Your task to perform on an android device: change notifications settings Image 0: 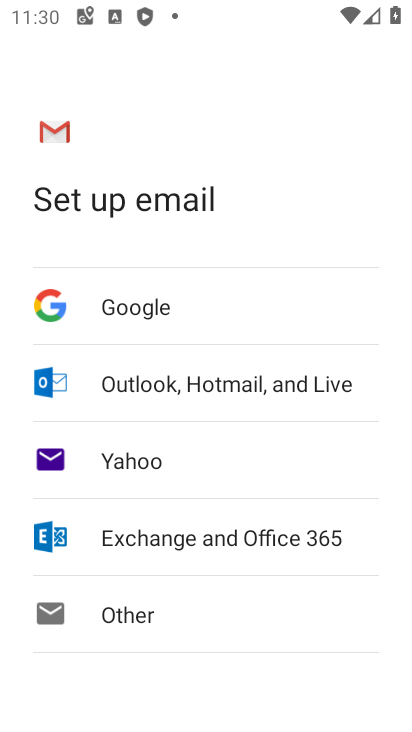
Step 0: press home button
Your task to perform on an android device: change notifications settings Image 1: 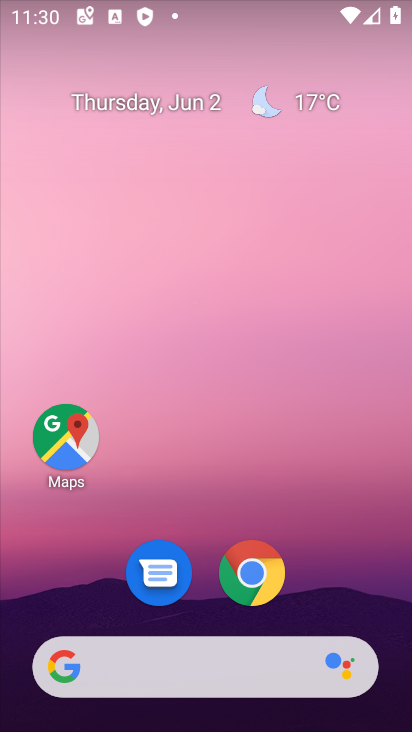
Step 1: drag from (310, 437) to (186, 32)
Your task to perform on an android device: change notifications settings Image 2: 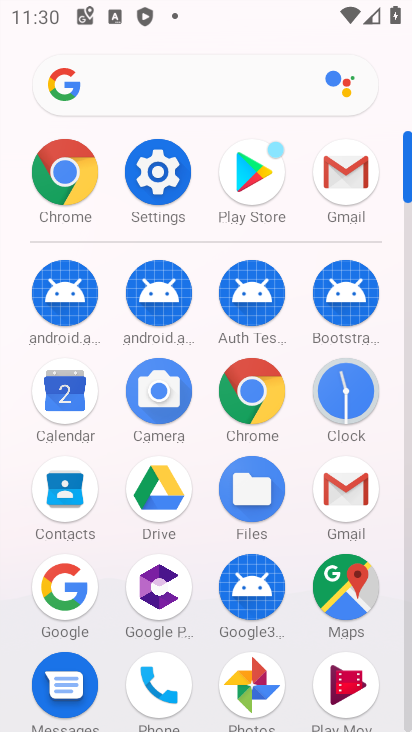
Step 2: click (146, 159)
Your task to perform on an android device: change notifications settings Image 3: 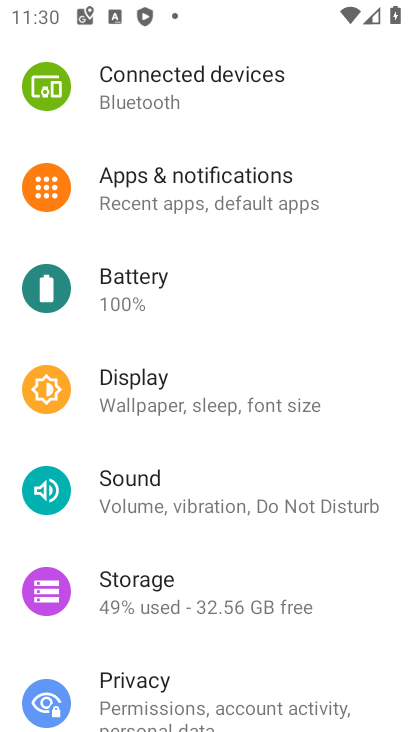
Step 3: click (215, 194)
Your task to perform on an android device: change notifications settings Image 4: 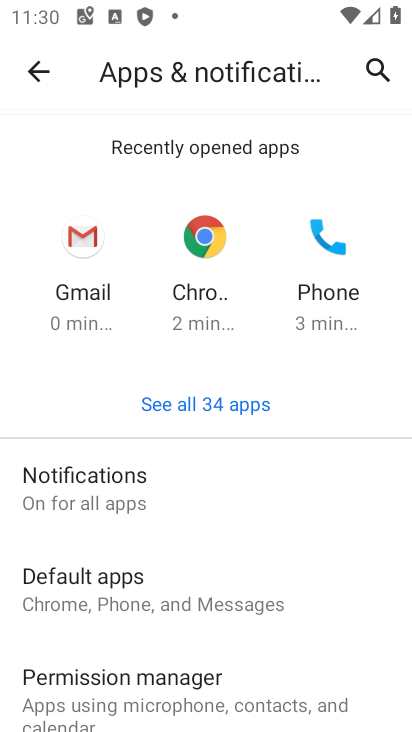
Step 4: click (89, 469)
Your task to perform on an android device: change notifications settings Image 5: 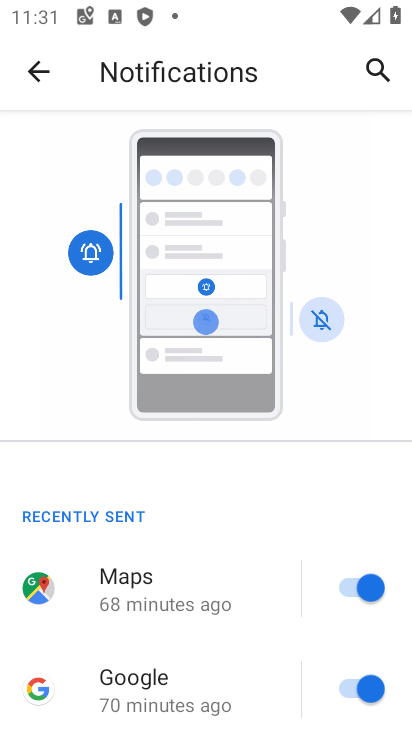
Step 5: task complete